Your task to perform on an android device: Open the map Image 0: 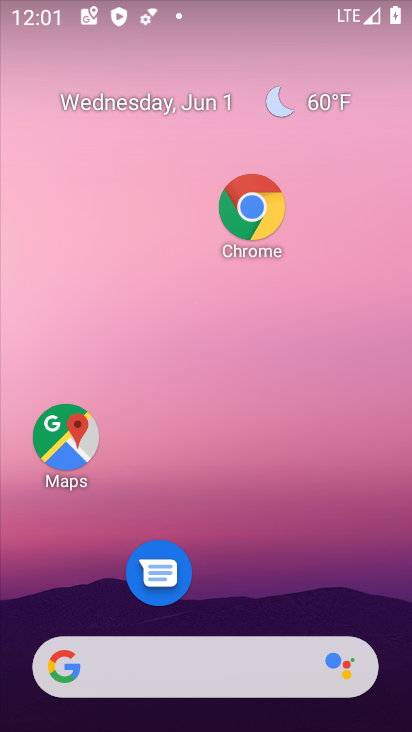
Step 0: click (88, 445)
Your task to perform on an android device: Open the map Image 1: 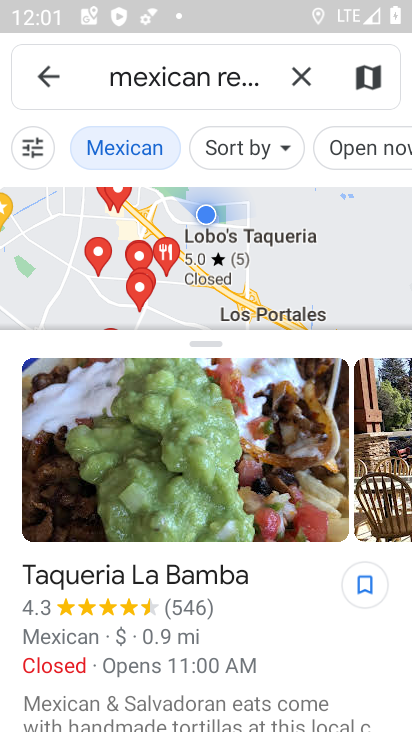
Step 1: task complete